Your task to perform on an android device: Show me recent news Image 0: 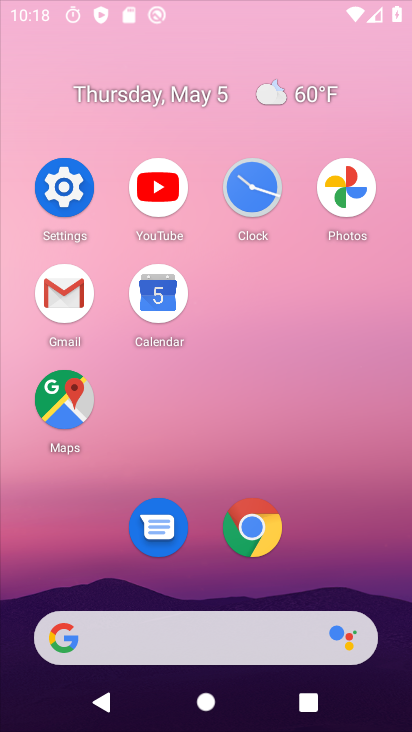
Step 0: click (262, 538)
Your task to perform on an android device: Show me recent news Image 1: 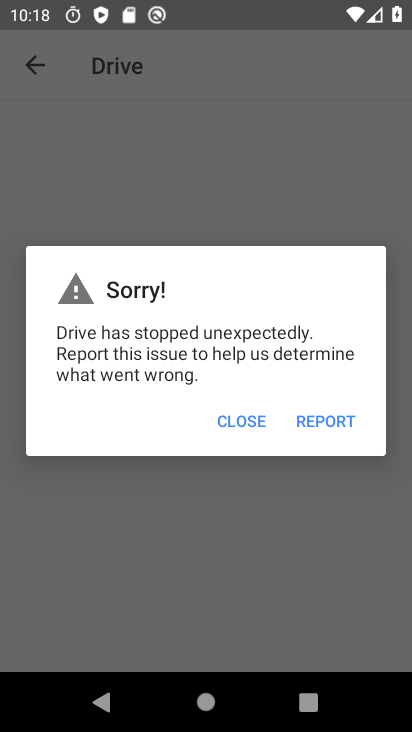
Step 1: click (241, 432)
Your task to perform on an android device: Show me recent news Image 2: 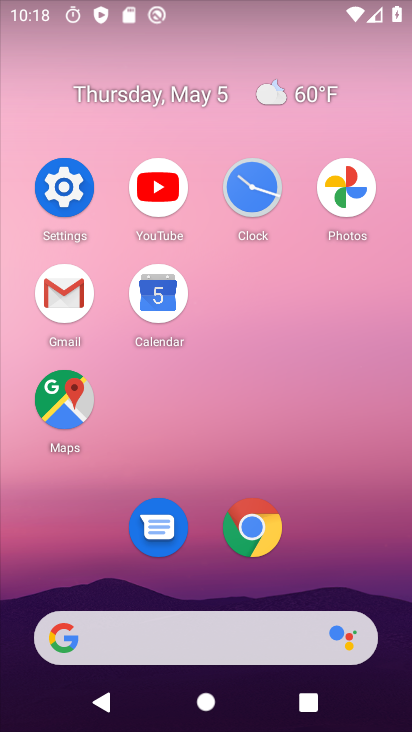
Step 2: click (260, 551)
Your task to perform on an android device: Show me recent news Image 3: 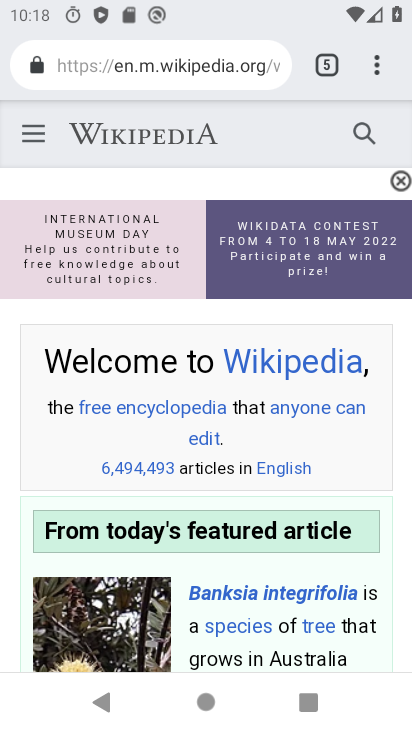
Step 3: click (373, 73)
Your task to perform on an android device: Show me recent news Image 4: 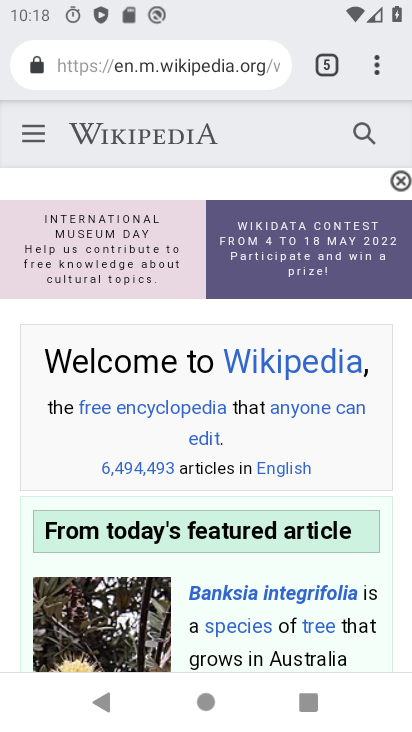
Step 4: click (368, 64)
Your task to perform on an android device: Show me recent news Image 5: 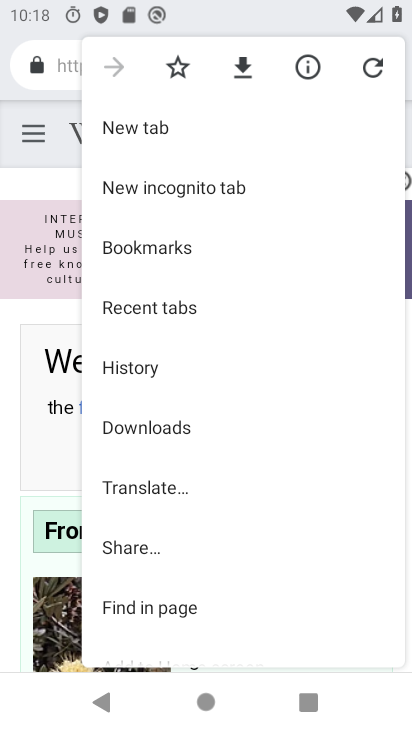
Step 5: drag from (233, 481) to (302, 153)
Your task to perform on an android device: Show me recent news Image 6: 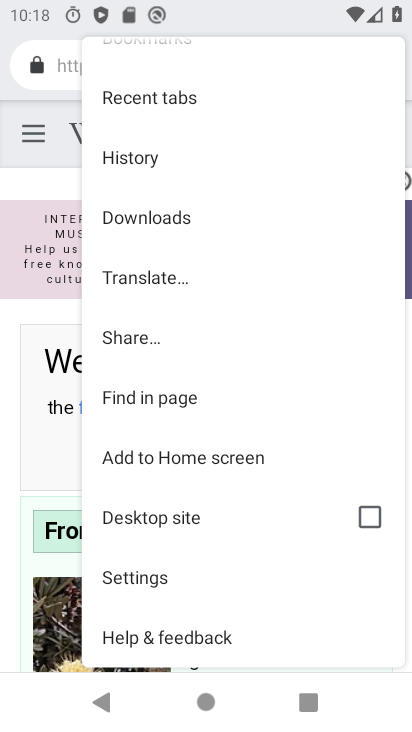
Step 6: drag from (279, 145) to (237, 476)
Your task to perform on an android device: Show me recent news Image 7: 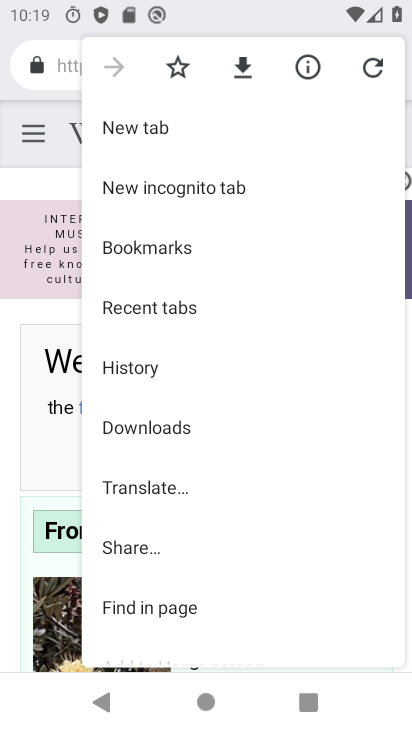
Step 7: press home button
Your task to perform on an android device: Show me recent news Image 8: 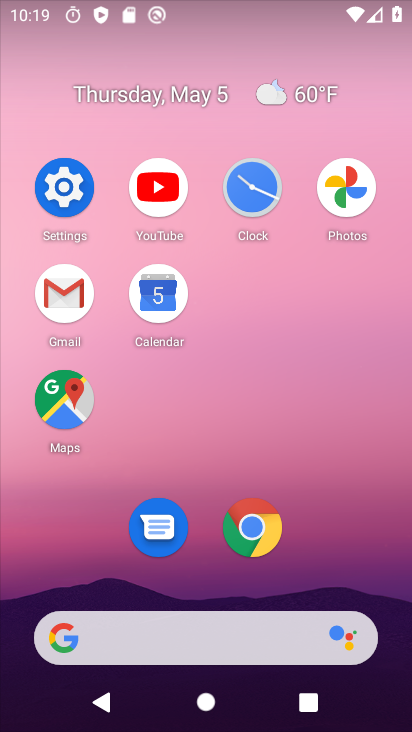
Step 8: drag from (292, 568) to (352, 95)
Your task to perform on an android device: Show me recent news Image 9: 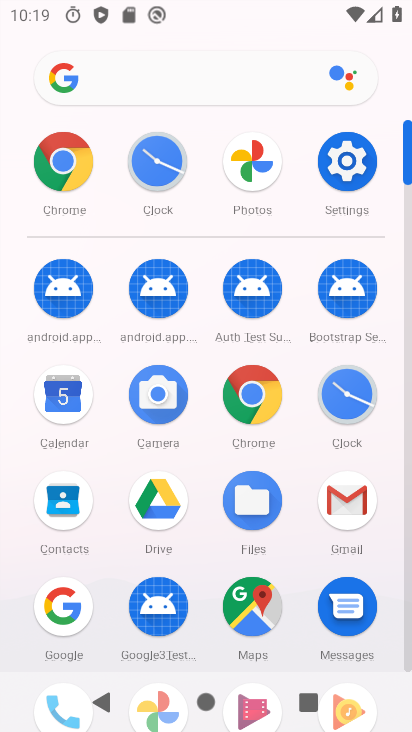
Step 9: click (65, 615)
Your task to perform on an android device: Show me recent news Image 10: 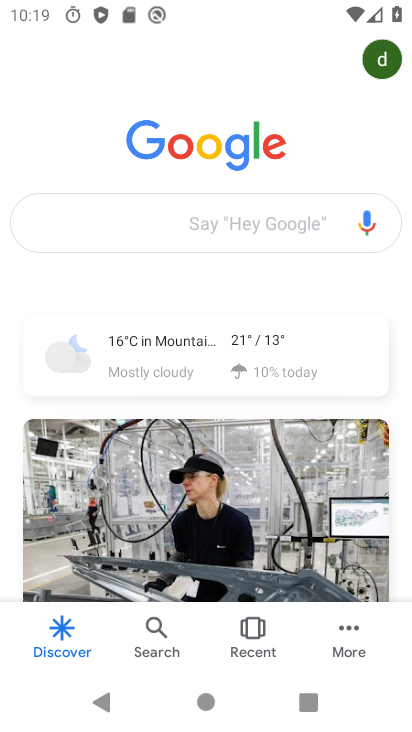
Step 10: click (168, 220)
Your task to perform on an android device: Show me recent news Image 11: 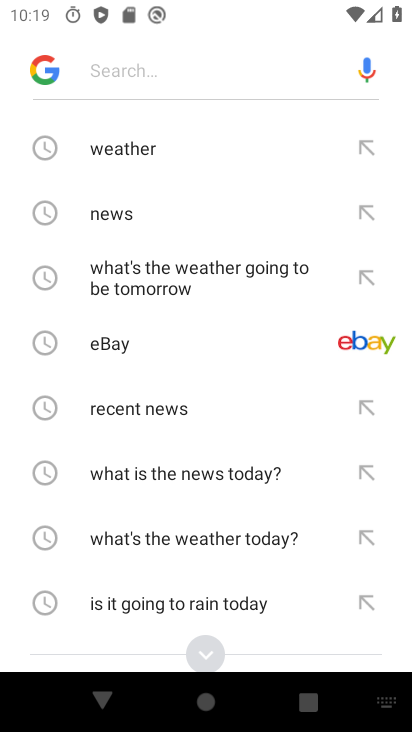
Step 11: click (94, 219)
Your task to perform on an android device: Show me recent news Image 12: 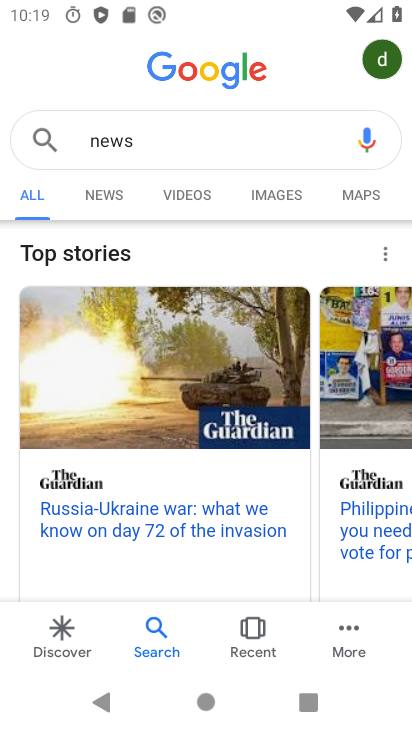
Step 12: task complete